Your task to perform on an android device: Open Youtube and go to the subscriptions tab Image 0: 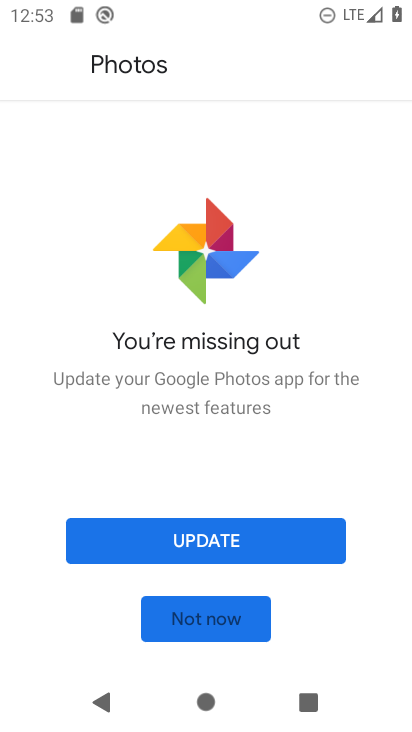
Step 0: press home button
Your task to perform on an android device: Open Youtube and go to the subscriptions tab Image 1: 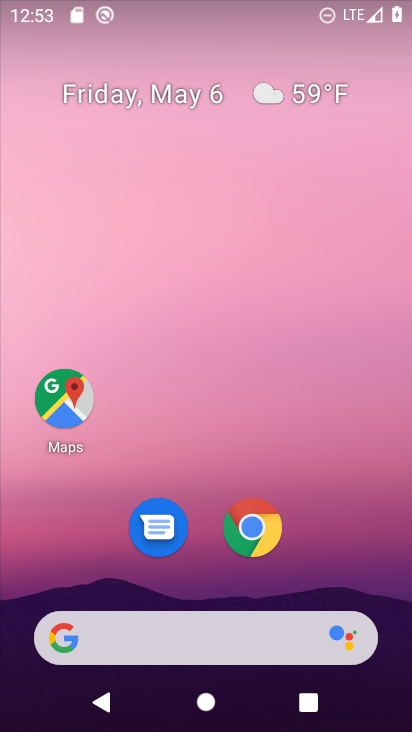
Step 1: drag from (327, 523) to (248, 44)
Your task to perform on an android device: Open Youtube and go to the subscriptions tab Image 2: 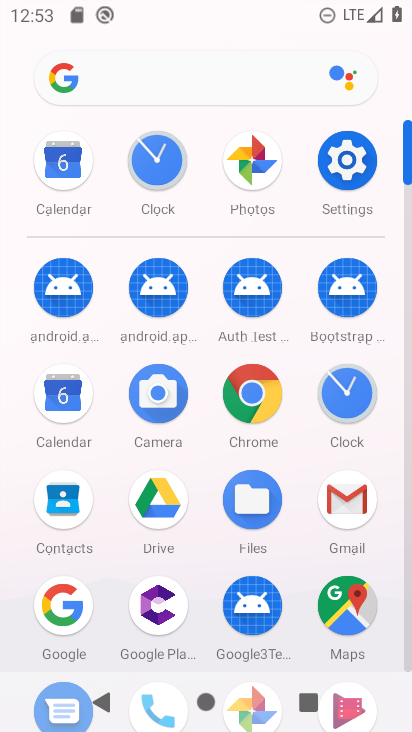
Step 2: drag from (283, 551) to (289, 222)
Your task to perform on an android device: Open Youtube and go to the subscriptions tab Image 3: 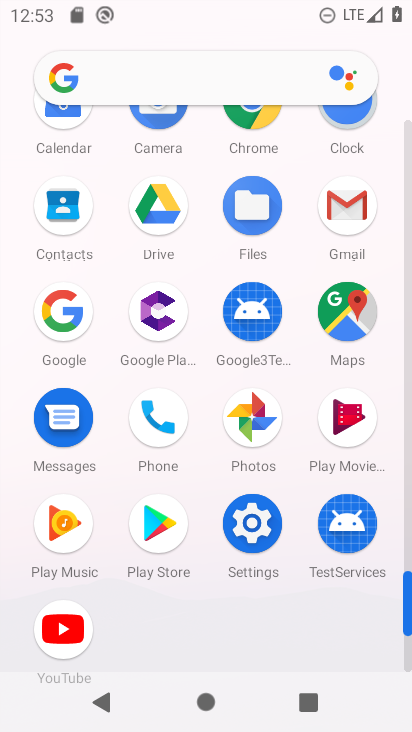
Step 3: click (60, 629)
Your task to perform on an android device: Open Youtube and go to the subscriptions tab Image 4: 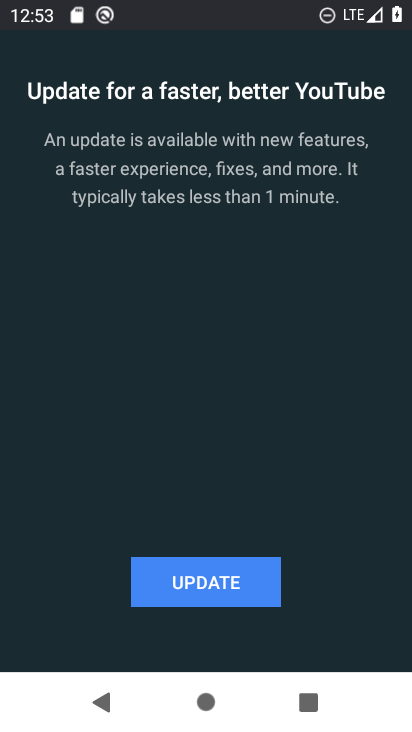
Step 4: click (188, 574)
Your task to perform on an android device: Open Youtube and go to the subscriptions tab Image 5: 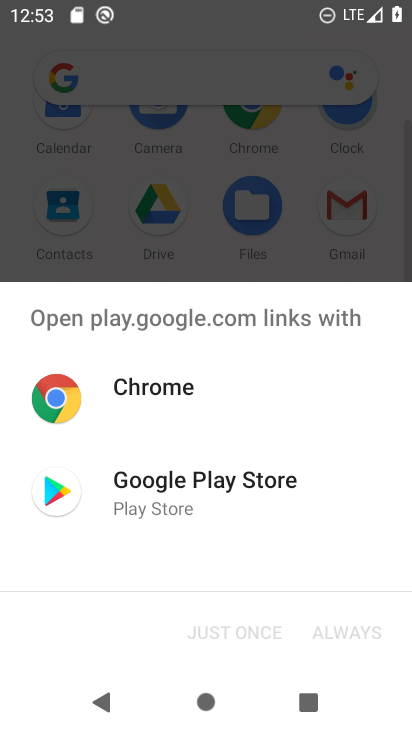
Step 5: click (176, 487)
Your task to perform on an android device: Open Youtube and go to the subscriptions tab Image 6: 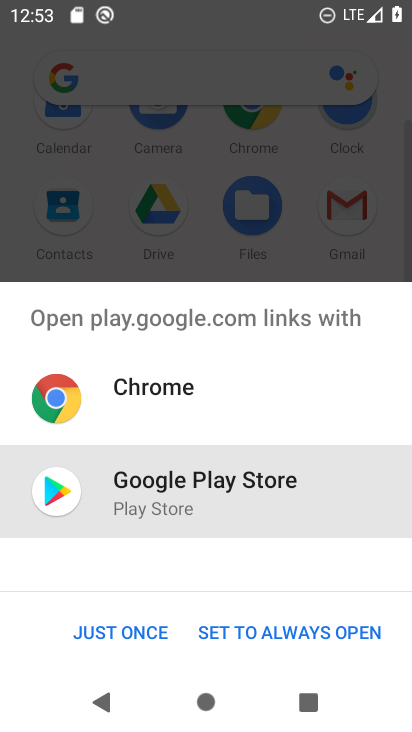
Step 6: click (138, 625)
Your task to perform on an android device: Open Youtube and go to the subscriptions tab Image 7: 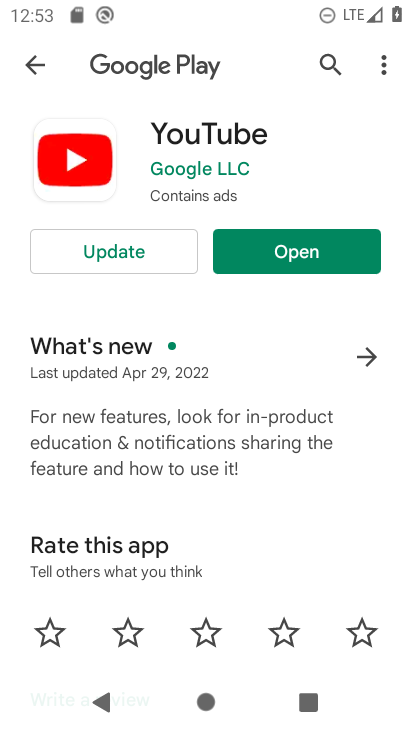
Step 7: click (156, 260)
Your task to perform on an android device: Open Youtube and go to the subscriptions tab Image 8: 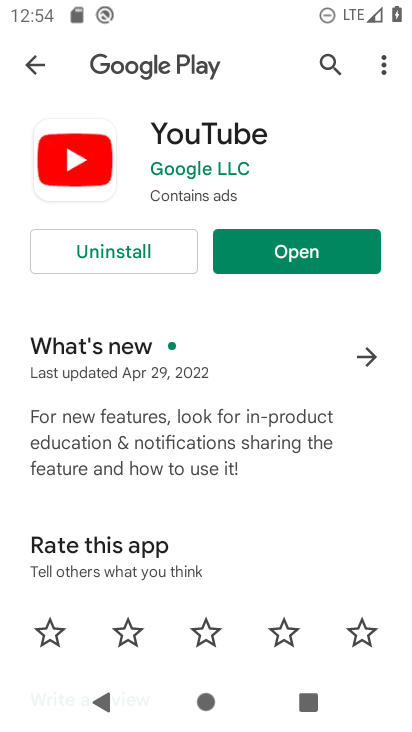
Step 8: click (310, 248)
Your task to perform on an android device: Open Youtube and go to the subscriptions tab Image 9: 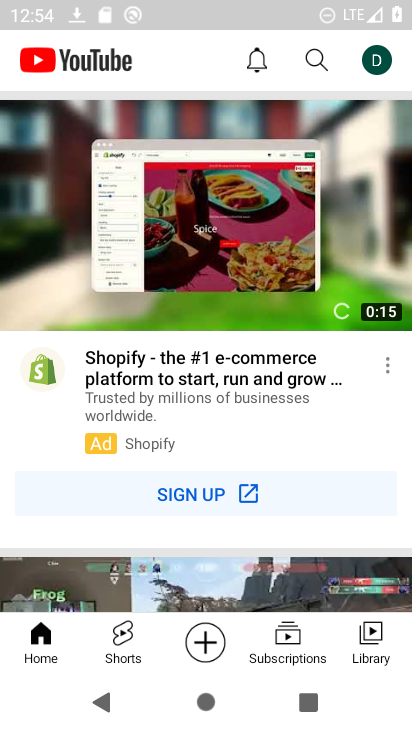
Step 9: click (282, 641)
Your task to perform on an android device: Open Youtube and go to the subscriptions tab Image 10: 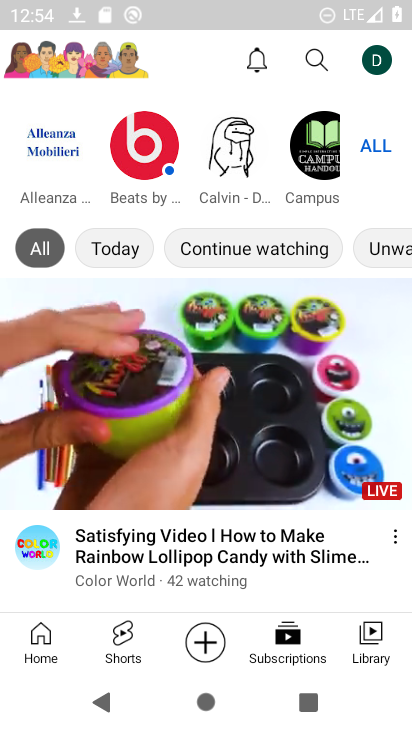
Step 10: task complete